Your task to perform on an android device: Go to Wikipedia Image 0: 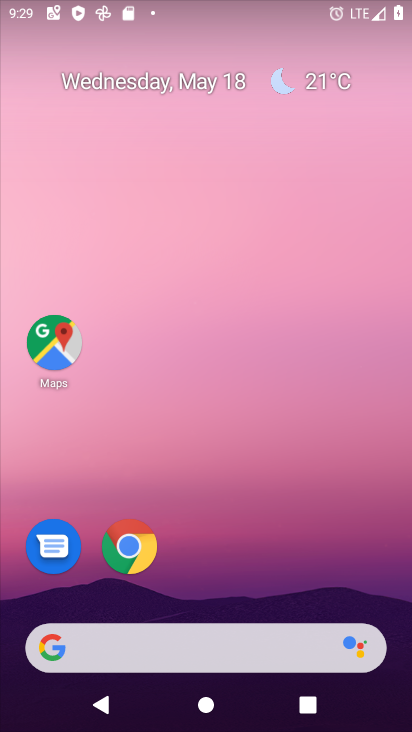
Step 0: drag from (395, 614) to (306, 64)
Your task to perform on an android device: Go to Wikipedia Image 1: 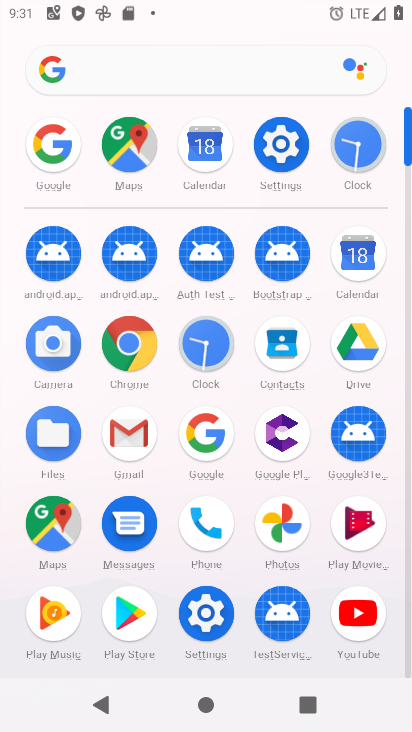
Step 1: click (132, 332)
Your task to perform on an android device: Go to Wikipedia Image 2: 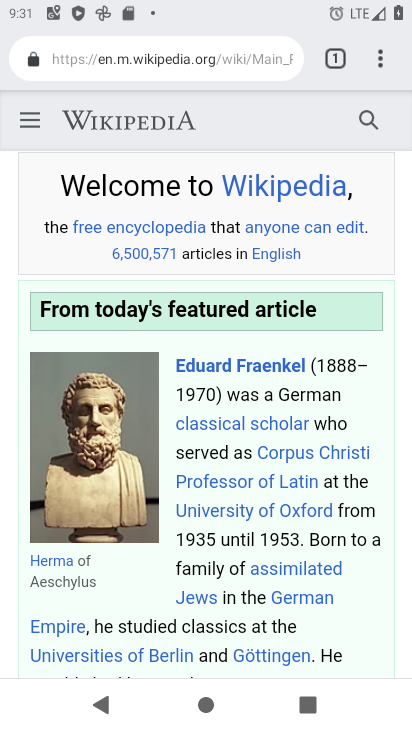
Step 2: task complete